Your task to perform on an android device: move an email to a new category in the gmail app Image 0: 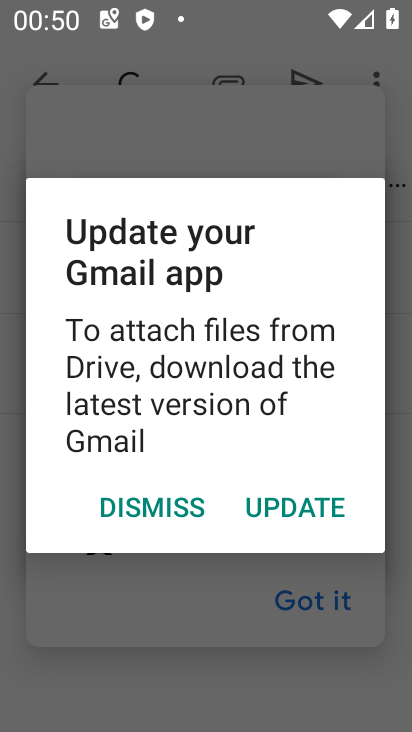
Step 0: press home button
Your task to perform on an android device: move an email to a new category in the gmail app Image 1: 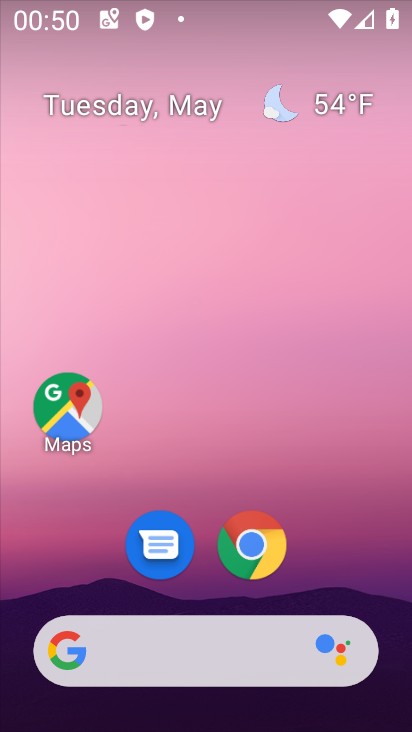
Step 1: drag from (253, 472) to (247, 86)
Your task to perform on an android device: move an email to a new category in the gmail app Image 2: 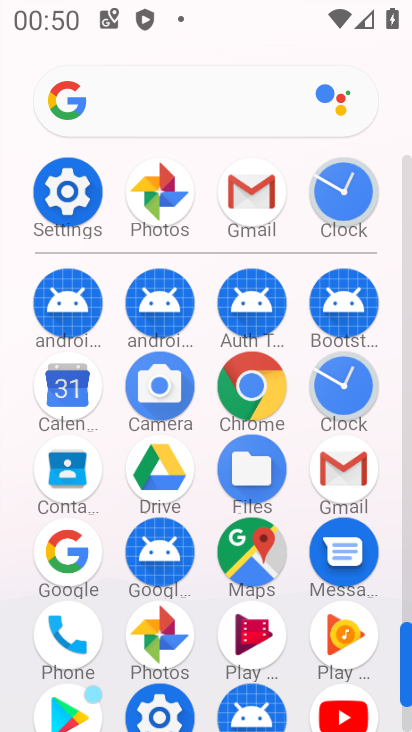
Step 2: click (238, 209)
Your task to perform on an android device: move an email to a new category in the gmail app Image 3: 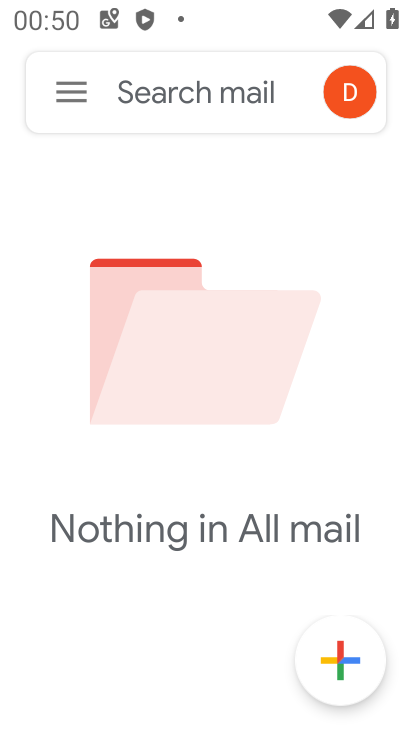
Step 3: click (86, 115)
Your task to perform on an android device: move an email to a new category in the gmail app Image 4: 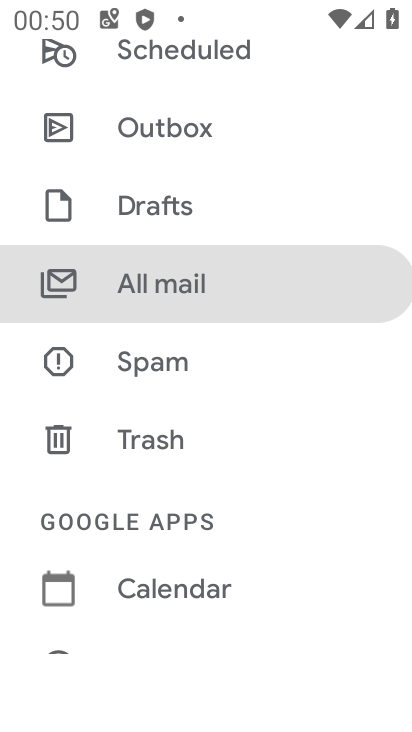
Step 4: click (174, 265)
Your task to perform on an android device: move an email to a new category in the gmail app Image 5: 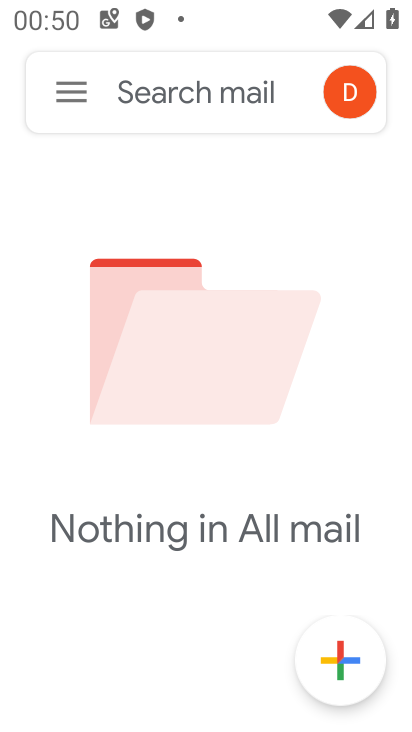
Step 5: task complete